Your task to perform on an android device: set the stopwatch Image 0: 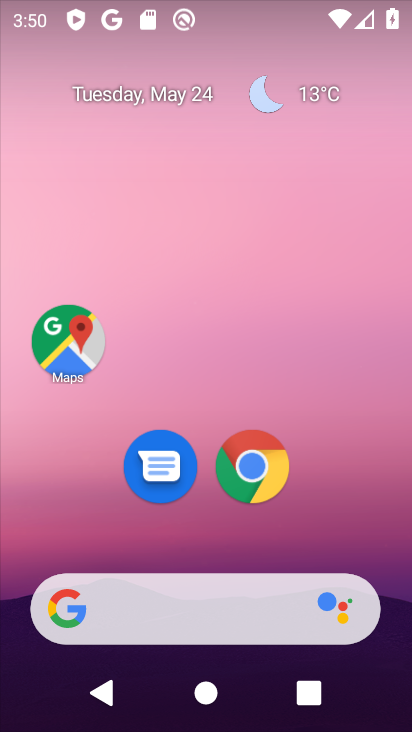
Step 0: drag from (357, 466) to (333, 131)
Your task to perform on an android device: set the stopwatch Image 1: 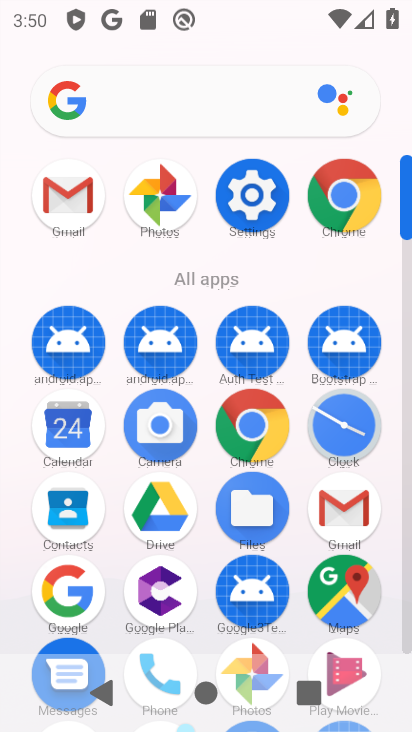
Step 1: click (332, 420)
Your task to perform on an android device: set the stopwatch Image 2: 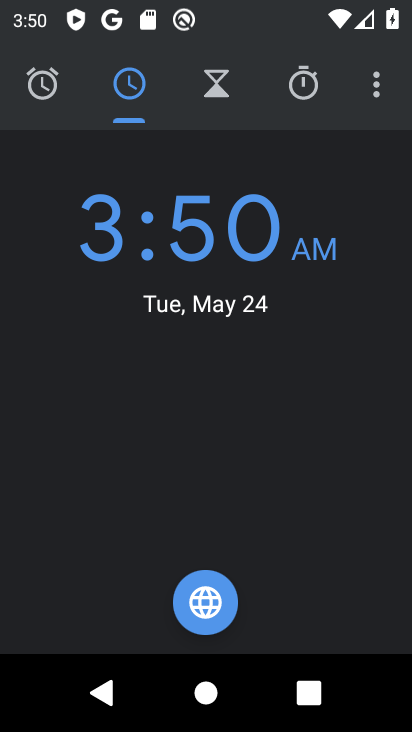
Step 2: click (311, 78)
Your task to perform on an android device: set the stopwatch Image 3: 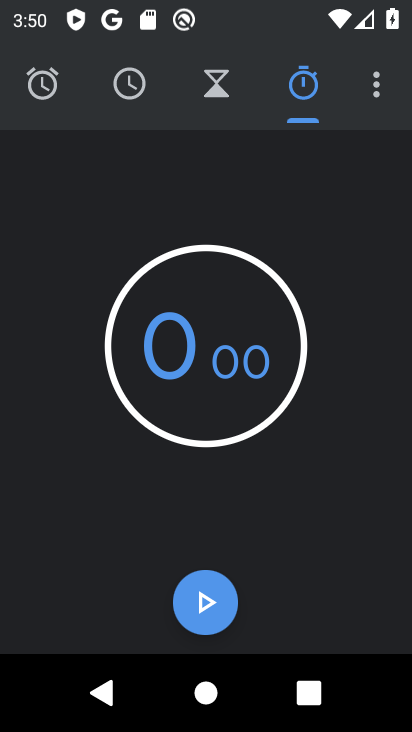
Step 3: click (214, 599)
Your task to perform on an android device: set the stopwatch Image 4: 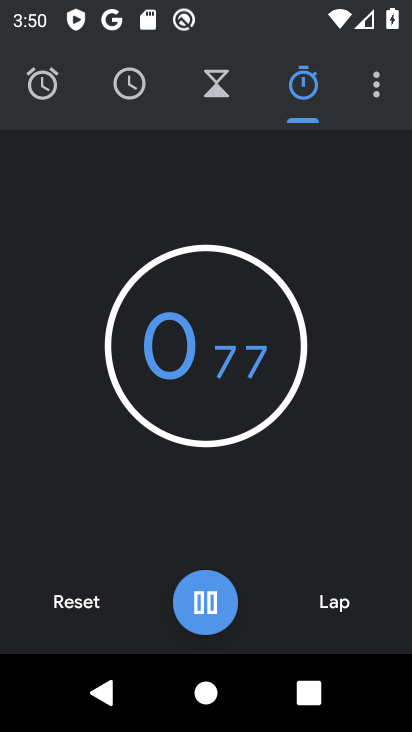
Step 4: click (213, 598)
Your task to perform on an android device: set the stopwatch Image 5: 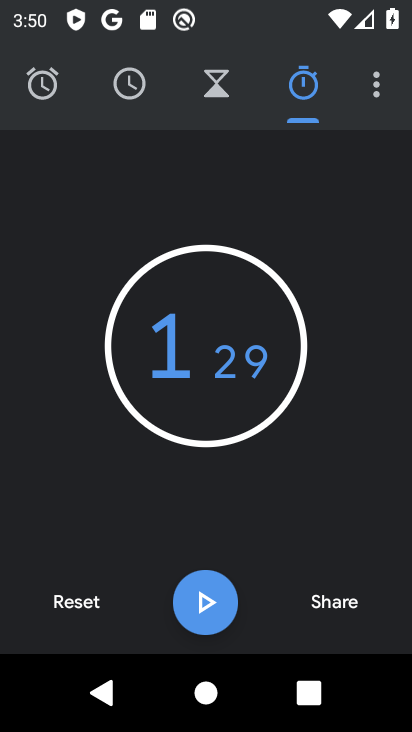
Step 5: task complete